Your task to perform on an android device: Is it going to rain this weekend? Image 0: 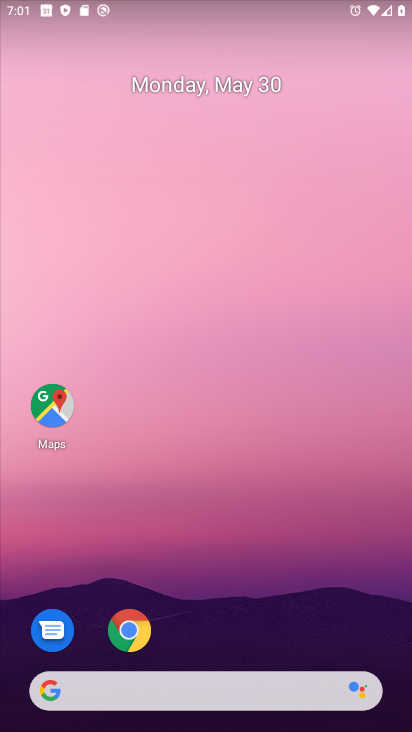
Step 0: drag from (276, 624) to (238, 10)
Your task to perform on an android device: Is it going to rain this weekend? Image 1: 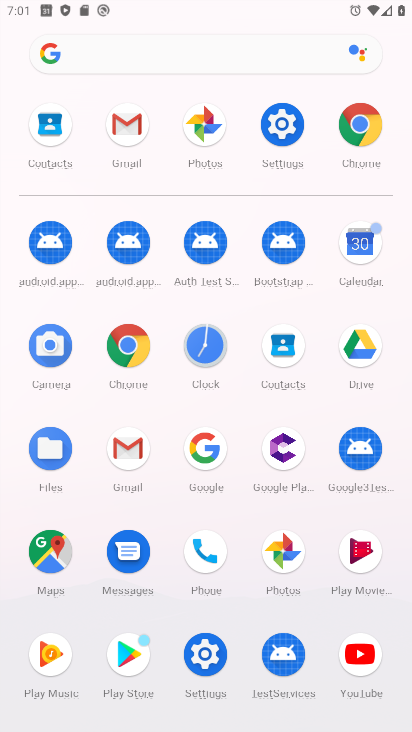
Step 1: click (194, 441)
Your task to perform on an android device: Is it going to rain this weekend? Image 2: 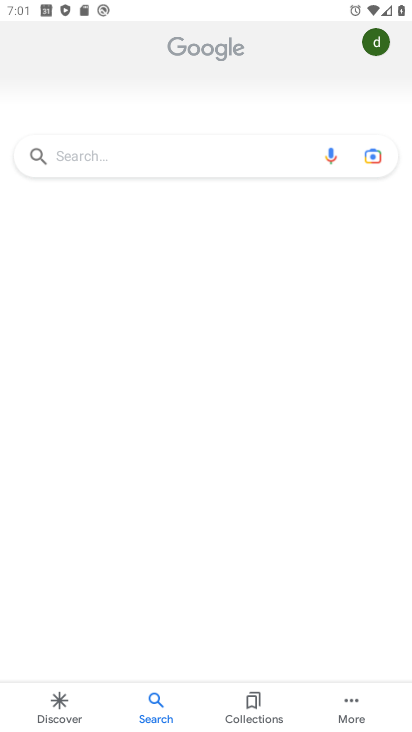
Step 2: click (137, 141)
Your task to perform on an android device: Is it going to rain this weekend? Image 3: 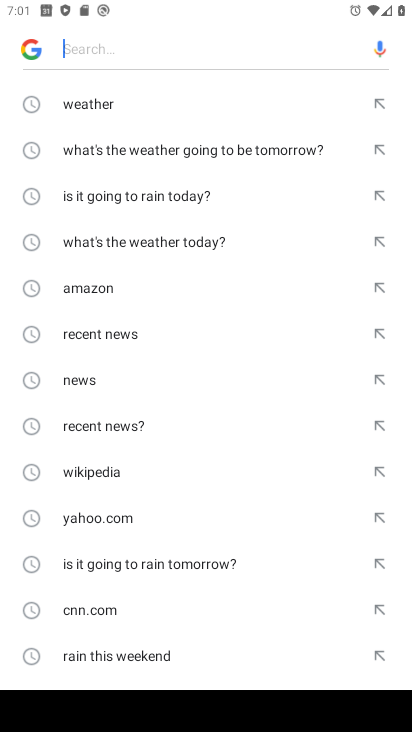
Step 3: drag from (175, 596) to (233, 189)
Your task to perform on an android device: Is it going to rain this weekend? Image 4: 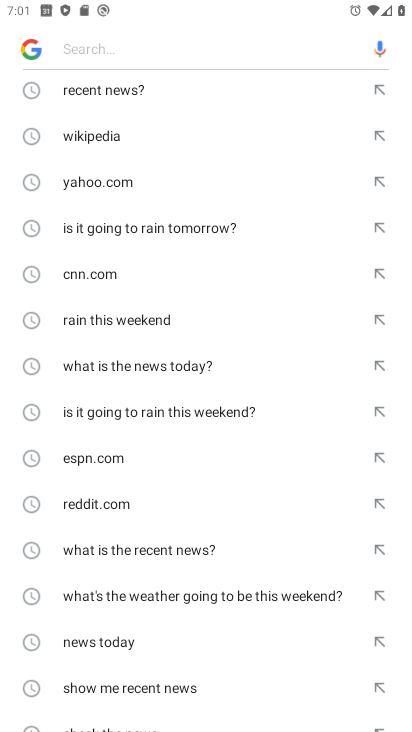
Step 4: click (182, 423)
Your task to perform on an android device: Is it going to rain this weekend? Image 5: 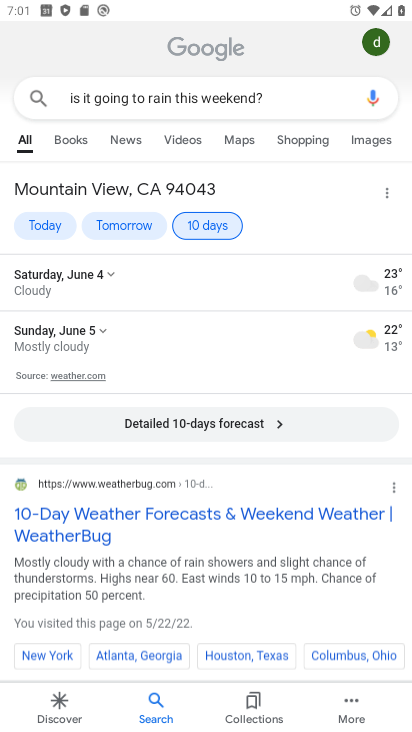
Step 5: task complete